Your task to perform on an android device: Set the phone to "Do not disturb". Image 0: 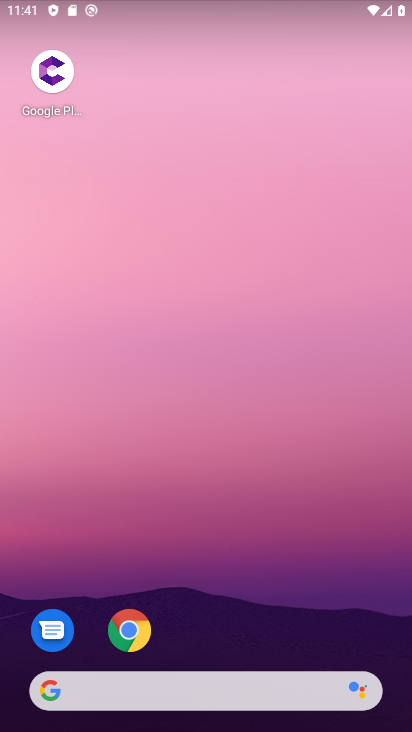
Step 0: drag from (209, 653) to (164, 199)
Your task to perform on an android device: Set the phone to "Do not disturb". Image 1: 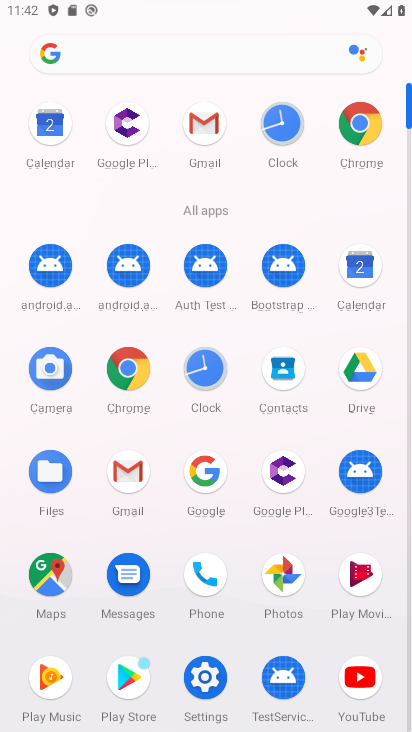
Step 1: click (200, 673)
Your task to perform on an android device: Set the phone to "Do not disturb". Image 2: 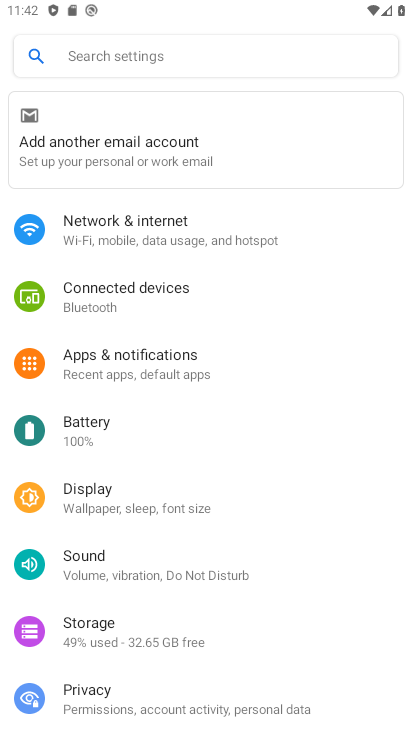
Step 2: drag from (200, 673) to (147, 280)
Your task to perform on an android device: Set the phone to "Do not disturb". Image 3: 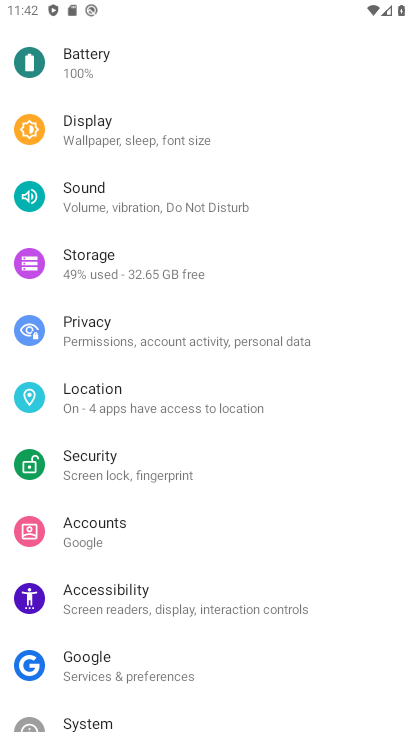
Step 3: click (160, 200)
Your task to perform on an android device: Set the phone to "Do not disturb". Image 4: 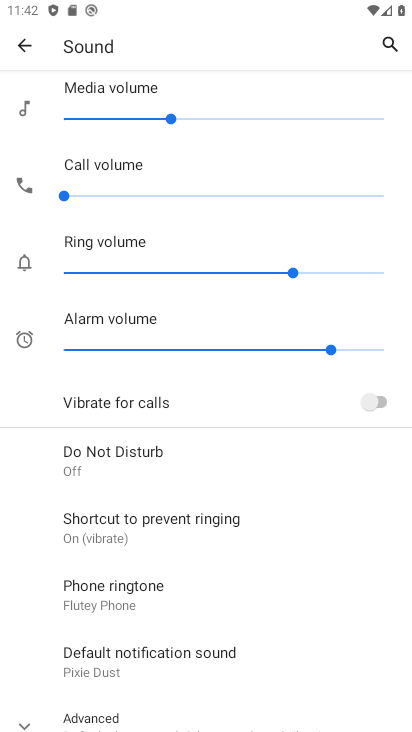
Step 4: click (174, 479)
Your task to perform on an android device: Set the phone to "Do not disturb". Image 5: 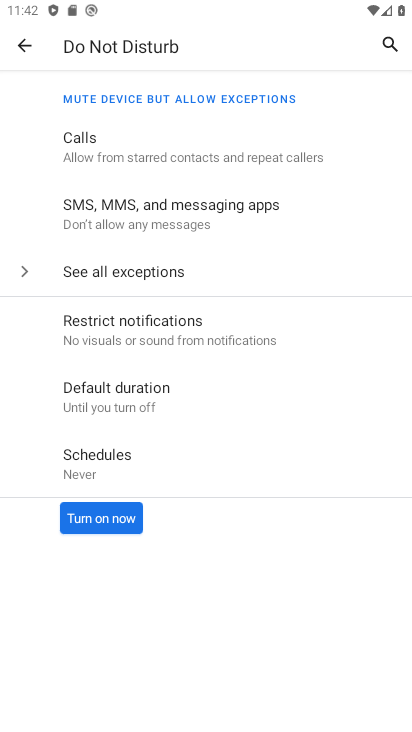
Step 5: click (106, 523)
Your task to perform on an android device: Set the phone to "Do not disturb". Image 6: 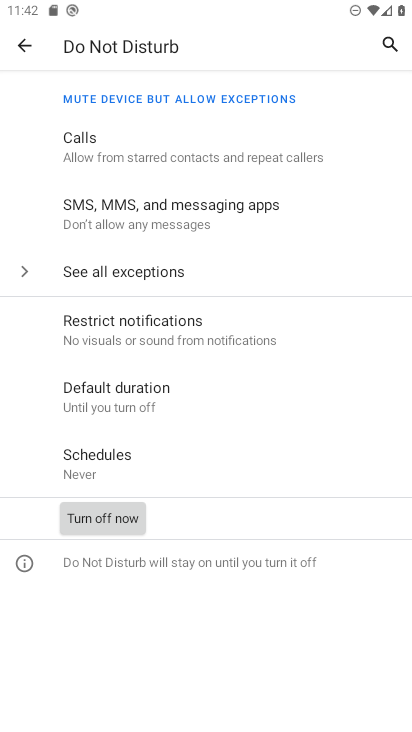
Step 6: task complete